Your task to perform on an android device: Open Yahoo.com Image 0: 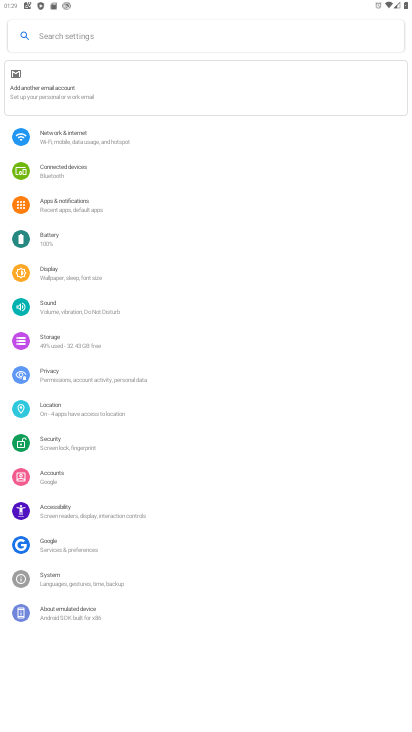
Step 0: press home button
Your task to perform on an android device: Open Yahoo.com Image 1: 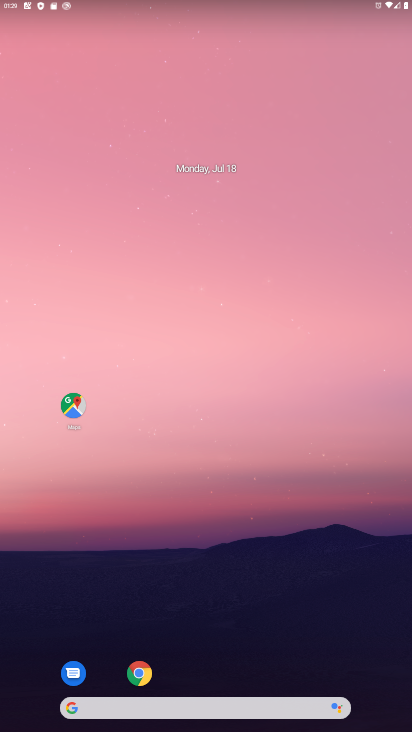
Step 1: click (145, 673)
Your task to perform on an android device: Open Yahoo.com Image 2: 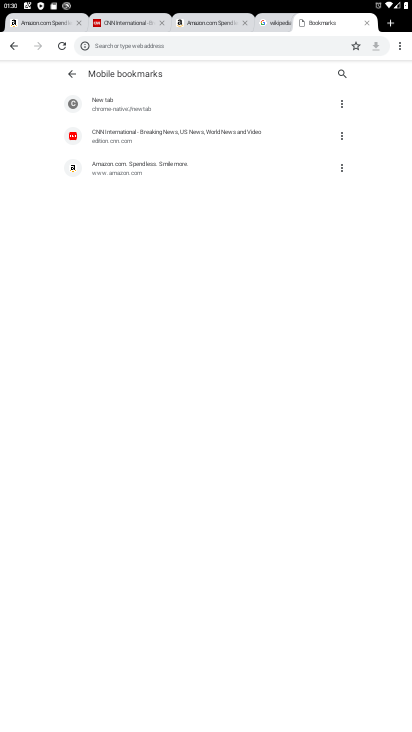
Step 2: click (212, 49)
Your task to perform on an android device: Open Yahoo.com Image 3: 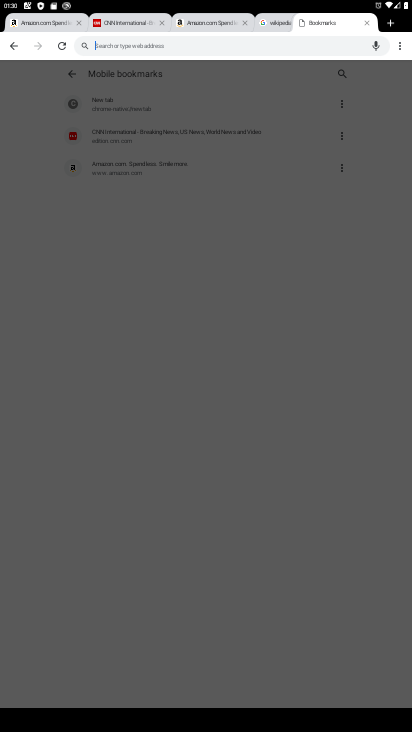
Step 3: type "yahoo.com"
Your task to perform on an android device: Open Yahoo.com Image 4: 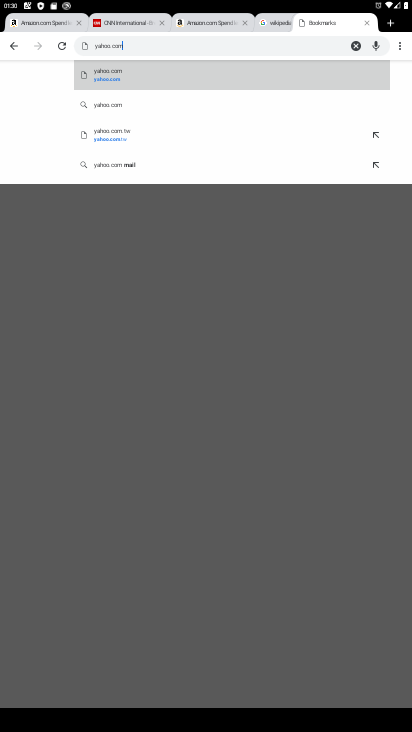
Step 4: click (147, 71)
Your task to perform on an android device: Open Yahoo.com Image 5: 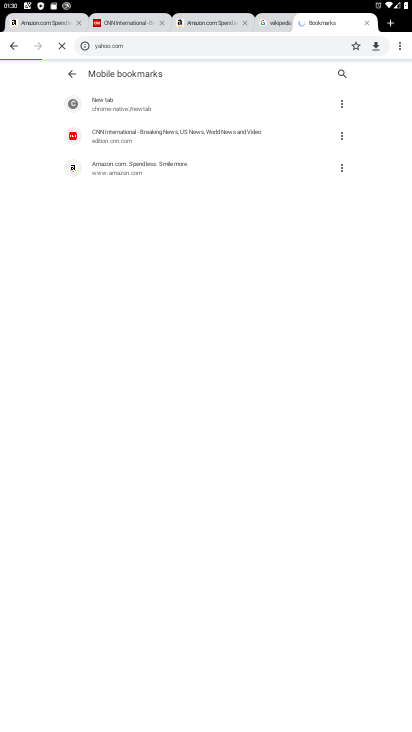
Step 5: task complete